Your task to perform on an android device: Empty the shopping cart on costco. Add duracell triple a to the cart on costco, then select checkout. Image 0: 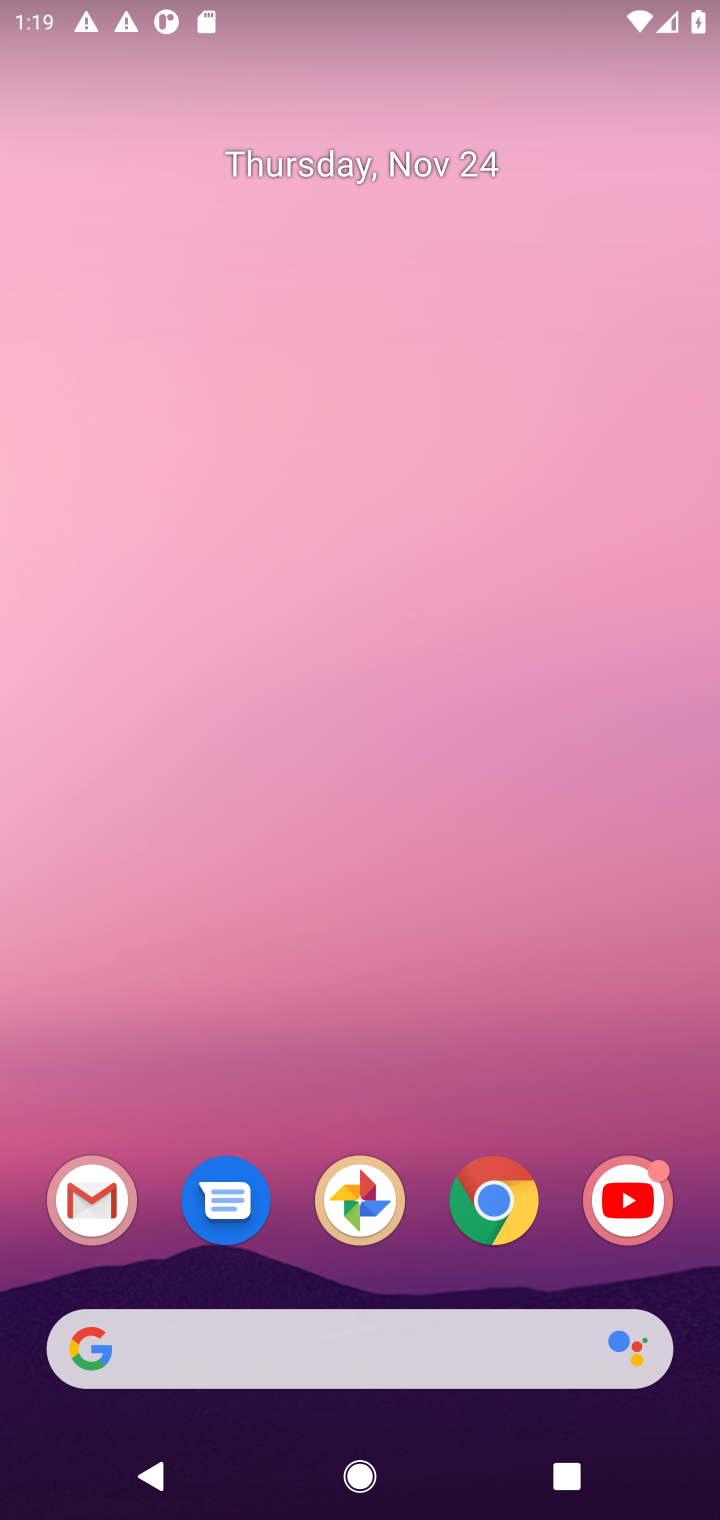
Step 0: click (207, 1364)
Your task to perform on an android device: Empty the shopping cart on costco. Add duracell triple a to the cart on costco, then select checkout. Image 1: 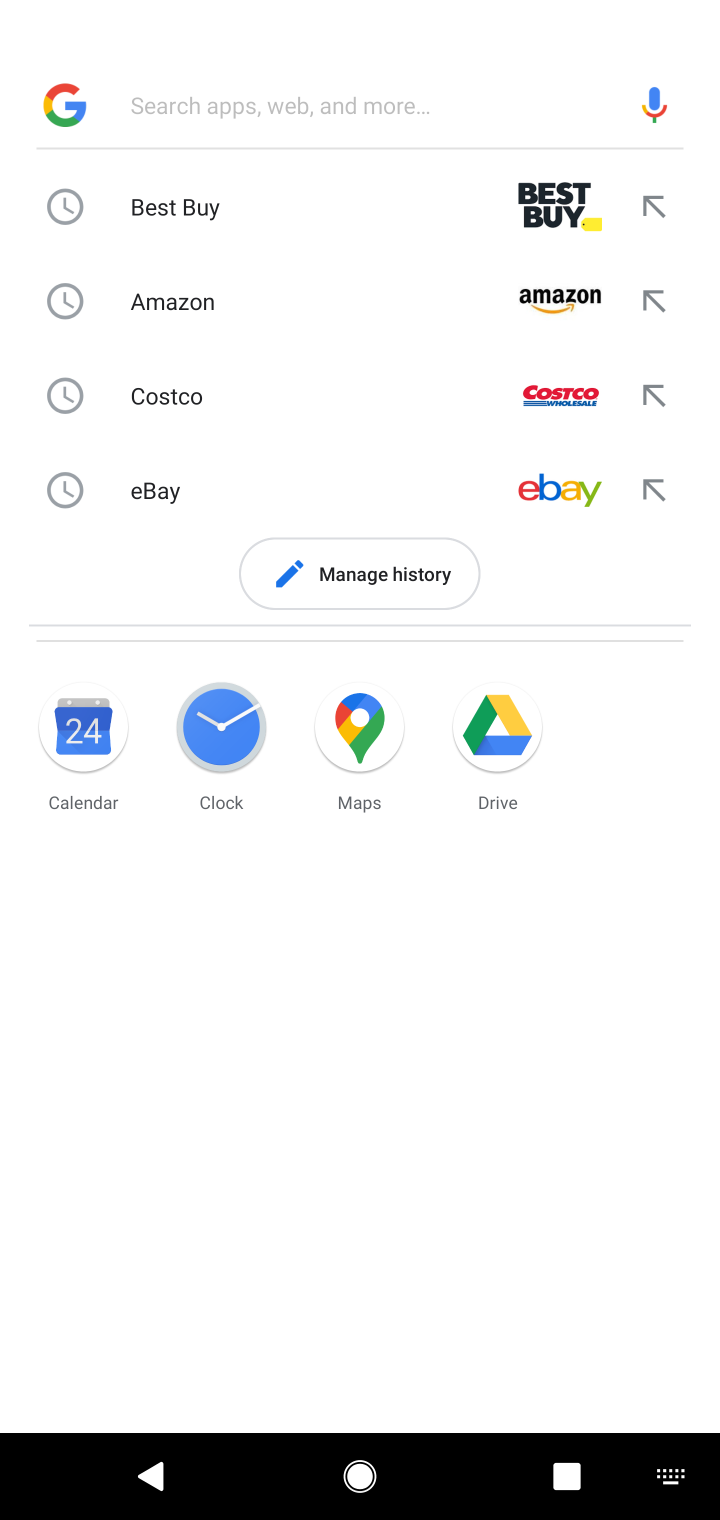
Step 1: type "costco"
Your task to perform on an android device: Empty the shopping cart on costco. Add duracell triple a to the cart on costco, then select checkout. Image 2: 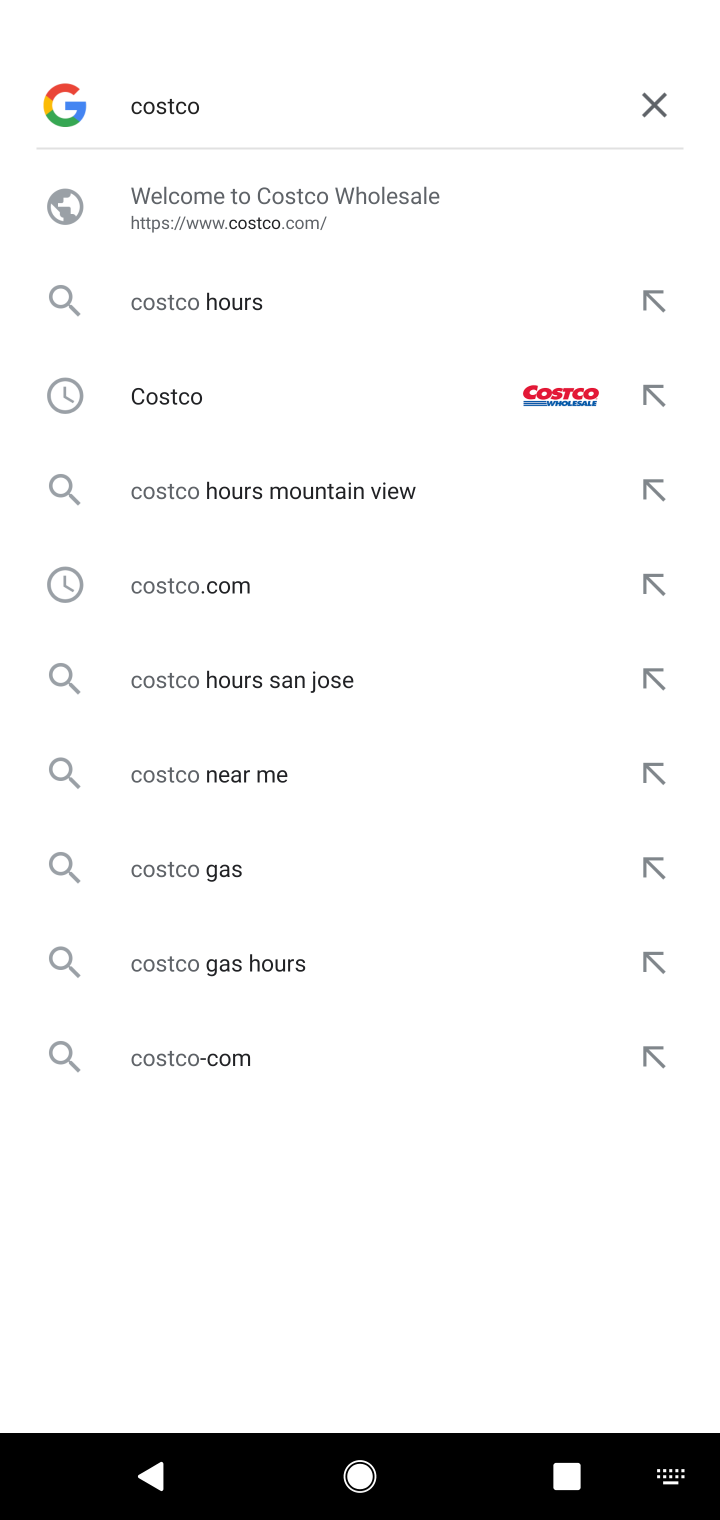
Step 2: click (273, 225)
Your task to perform on an android device: Empty the shopping cart on costco. Add duracell triple a to the cart on costco, then select checkout. Image 3: 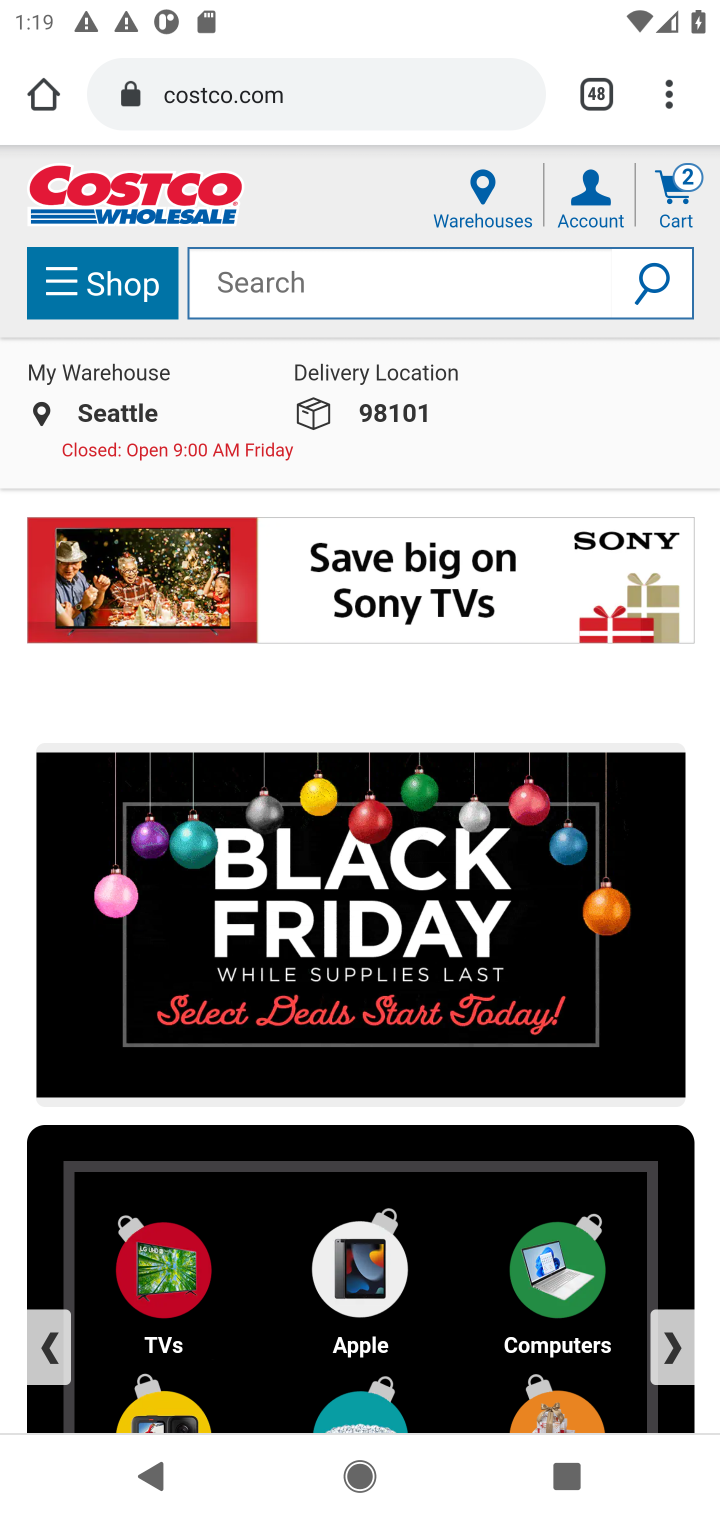
Step 3: click (292, 268)
Your task to perform on an android device: Empty the shopping cart on costco. Add duracell triple a to the cart on costco, then select checkout. Image 4: 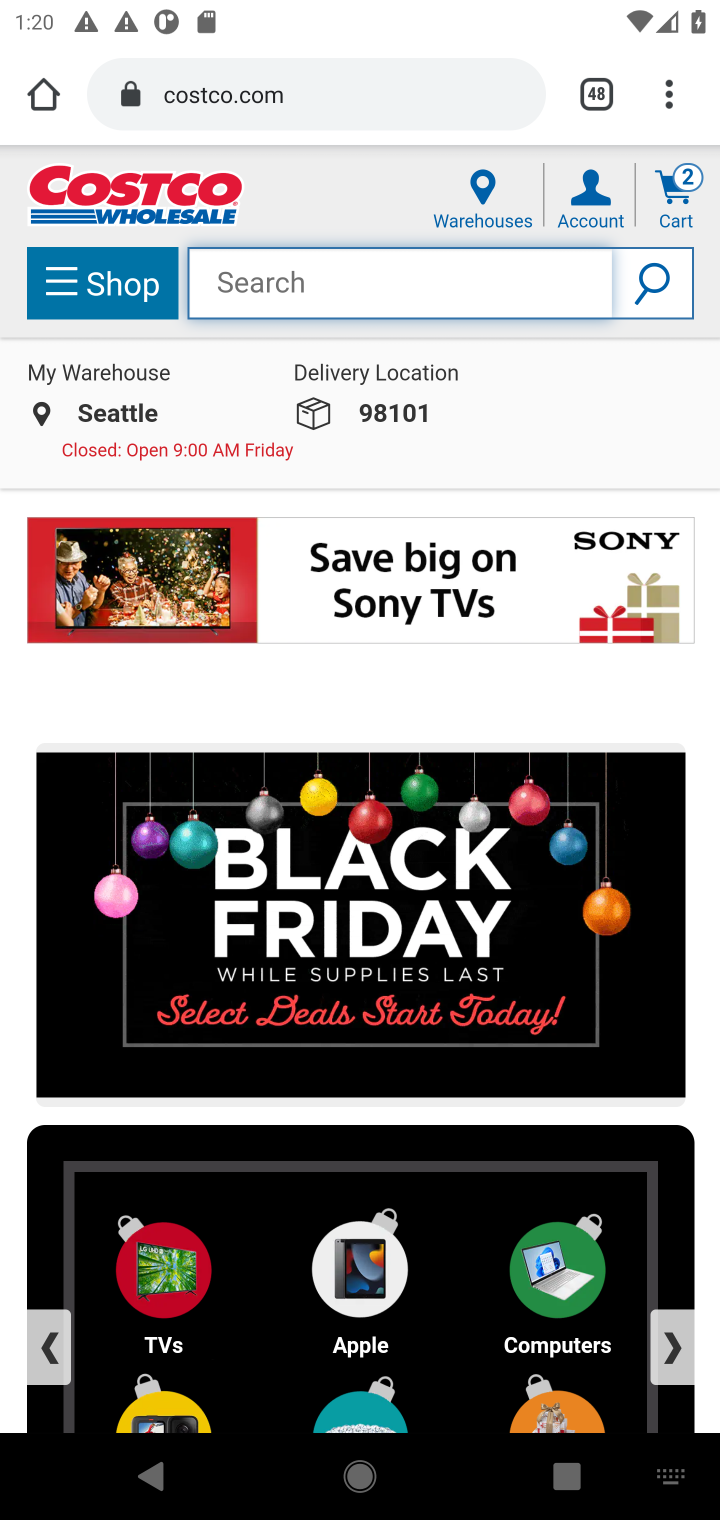
Step 4: type "duracell triple"
Your task to perform on an android device: Empty the shopping cart on costco. Add duracell triple a to the cart on costco, then select checkout. Image 5: 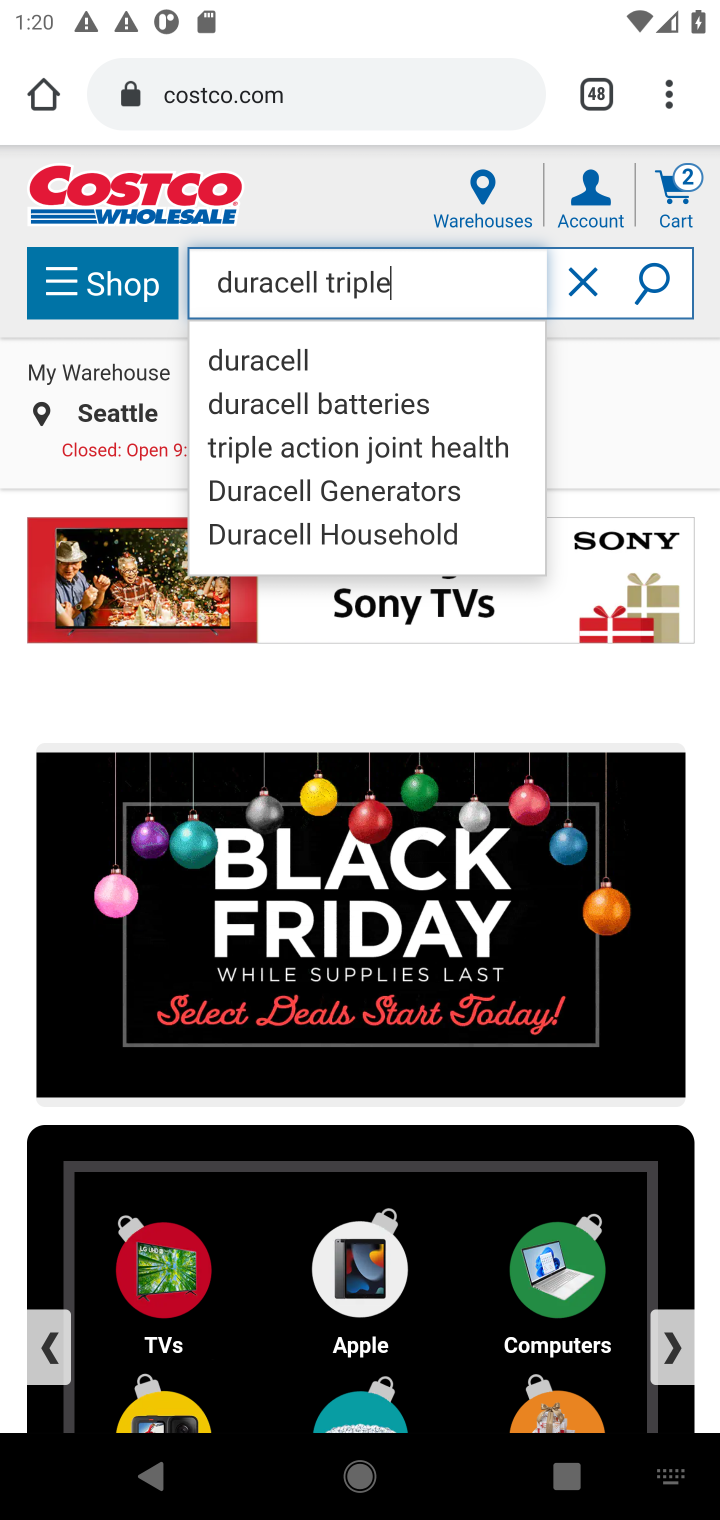
Step 5: click (308, 339)
Your task to perform on an android device: Empty the shopping cart on costco. Add duracell triple a to the cart on costco, then select checkout. Image 6: 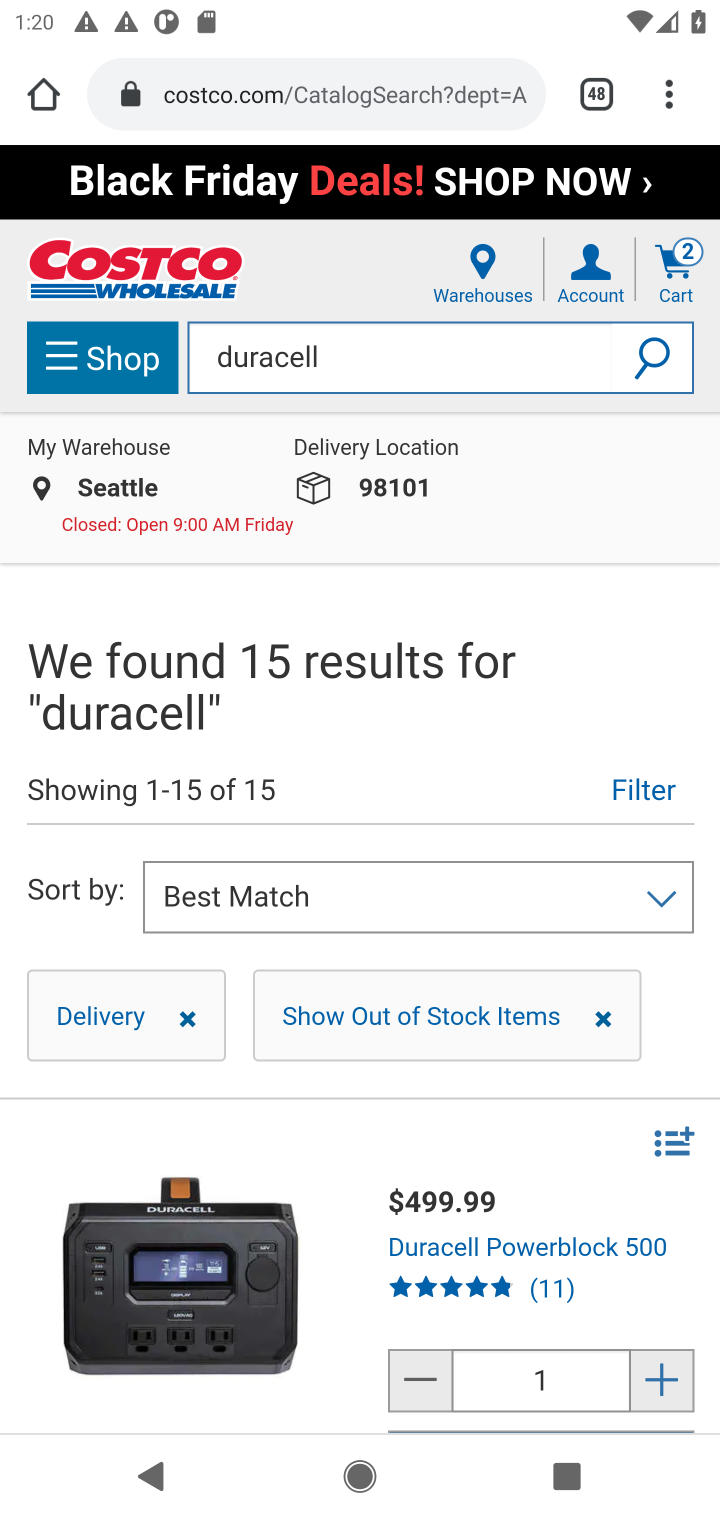
Step 6: task complete